Your task to perform on an android device: manage bookmarks in the chrome app Image 0: 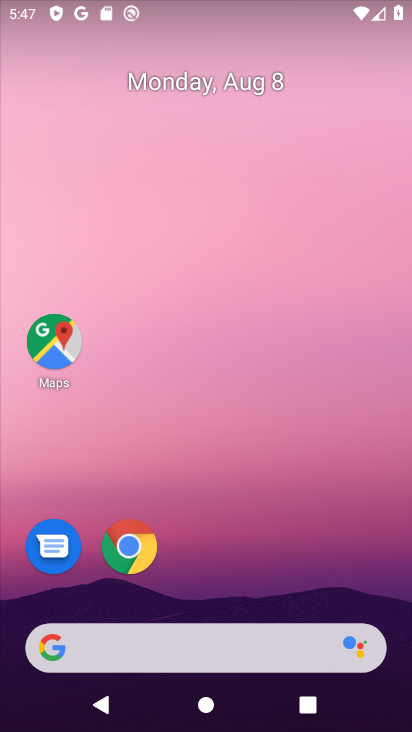
Step 0: click (139, 535)
Your task to perform on an android device: manage bookmarks in the chrome app Image 1: 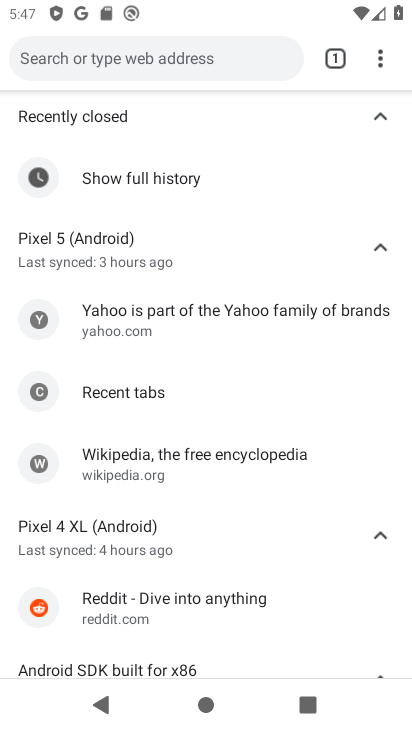
Step 1: click (381, 66)
Your task to perform on an android device: manage bookmarks in the chrome app Image 2: 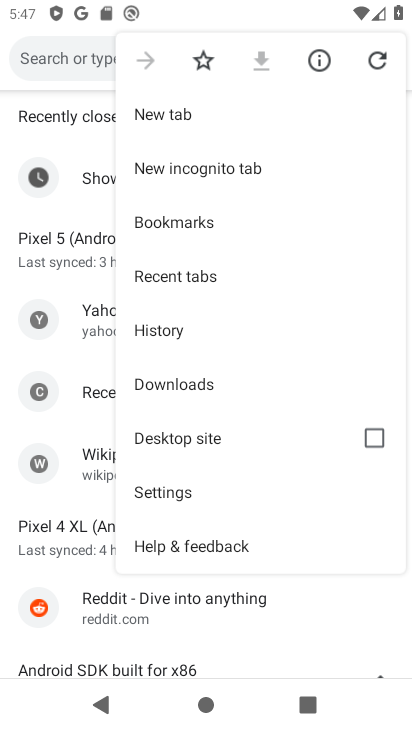
Step 2: click (184, 226)
Your task to perform on an android device: manage bookmarks in the chrome app Image 3: 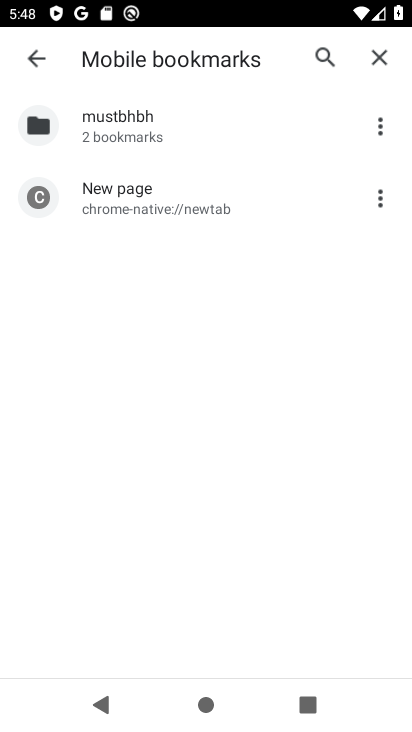
Step 3: click (382, 200)
Your task to perform on an android device: manage bookmarks in the chrome app Image 4: 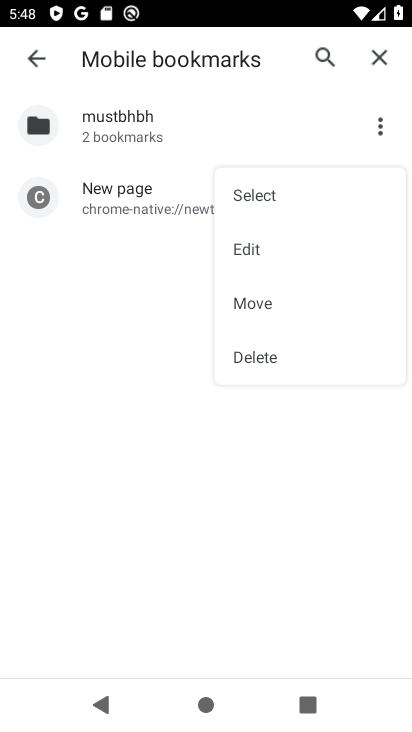
Step 4: click (254, 347)
Your task to perform on an android device: manage bookmarks in the chrome app Image 5: 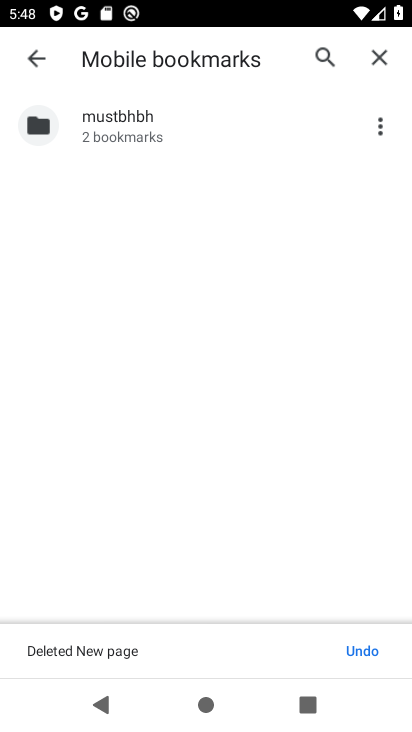
Step 5: task complete